Your task to perform on an android device: Check the news Image 0: 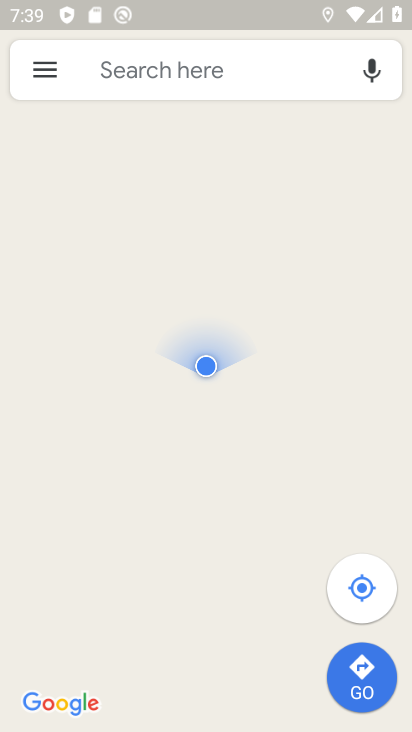
Step 0: press home button
Your task to perform on an android device: Check the news Image 1: 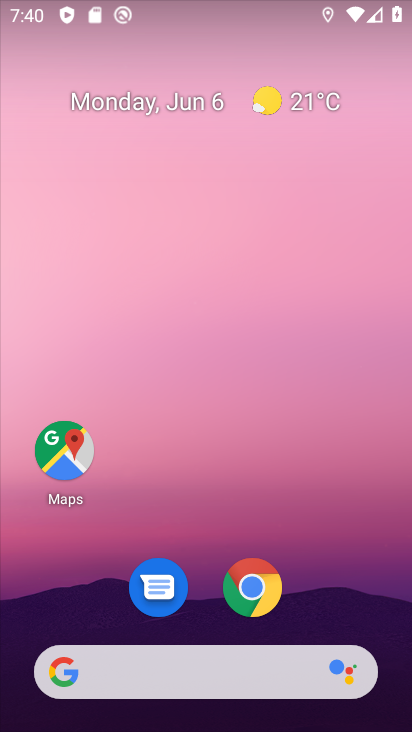
Step 1: click (246, 677)
Your task to perform on an android device: Check the news Image 2: 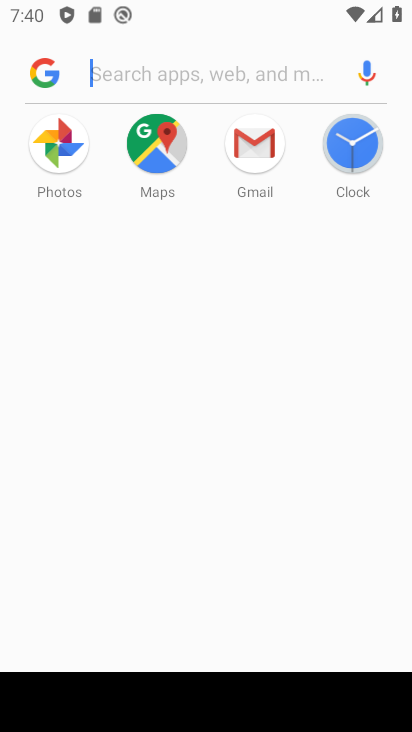
Step 2: type "news"
Your task to perform on an android device: Check the news Image 3: 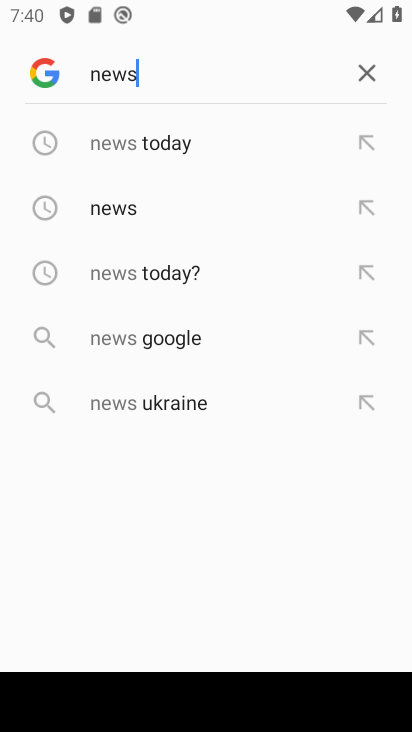
Step 3: click (184, 206)
Your task to perform on an android device: Check the news Image 4: 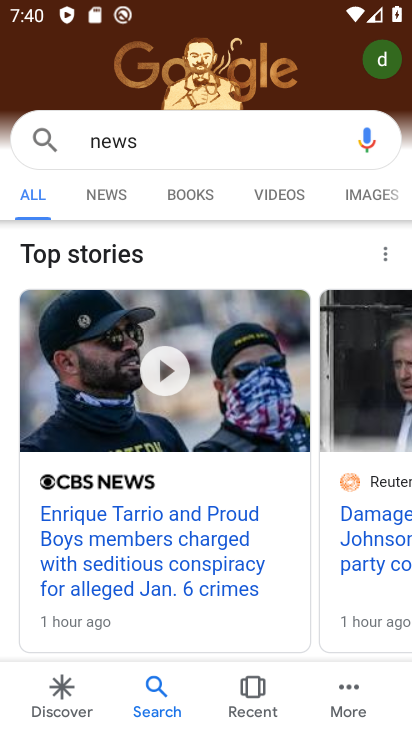
Step 4: task complete